Your task to perform on an android device: Check the news Image 0: 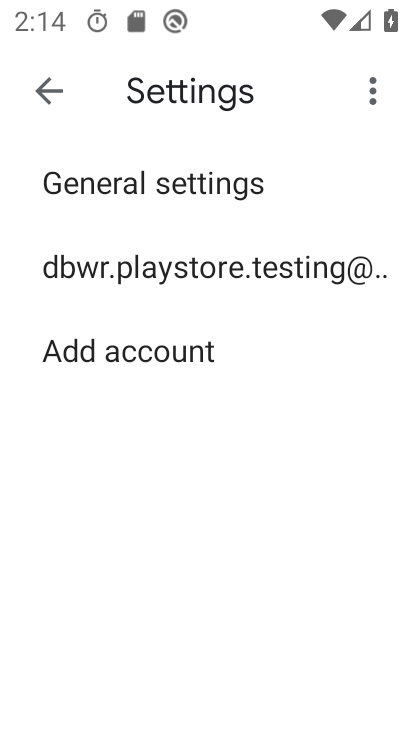
Step 0: click (48, 89)
Your task to perform on an android device: Check the news Image 1: 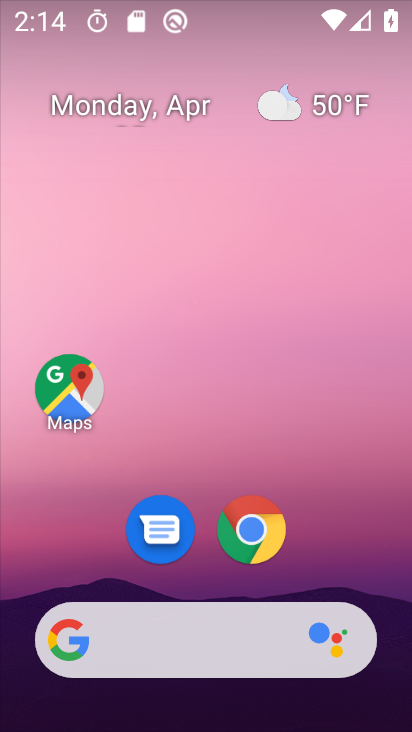
Step 1: click (322, 103)
Your task to perform on an android device: Check the news Image 2: 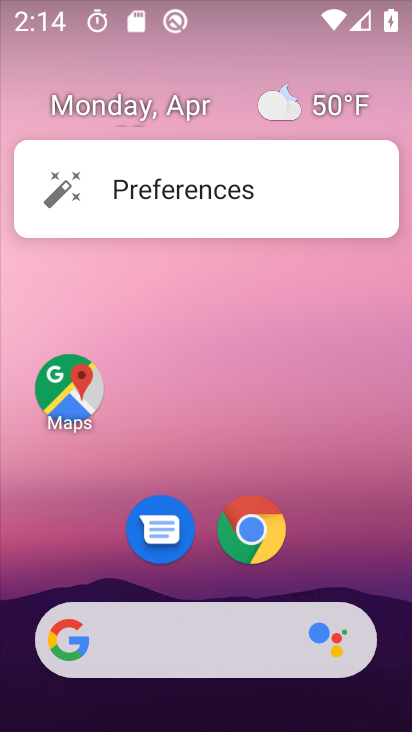
Step 2: click (331, 336)
Your task to perform on an android device: Check the news Image 3: 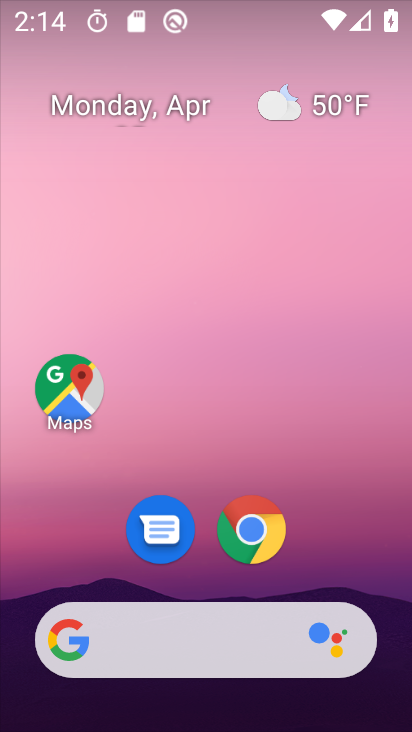
Step 3: drag from (375, 414) to (357, 100)
Your task to perform on an android device: Check the news Image 4: 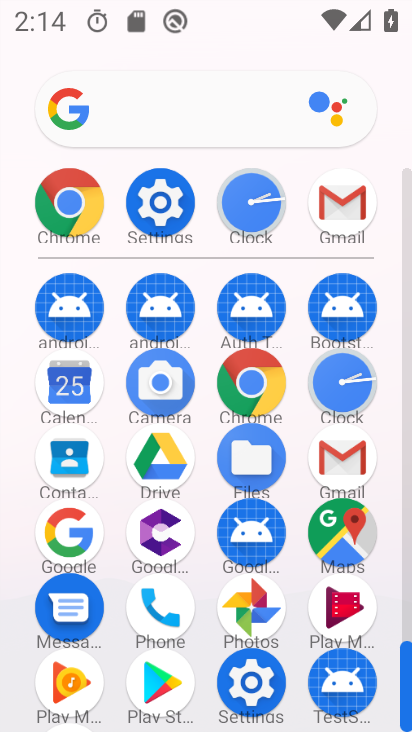
Step 4: click (60, 543)
Your task to perform on an android device: Check the news Image 5: 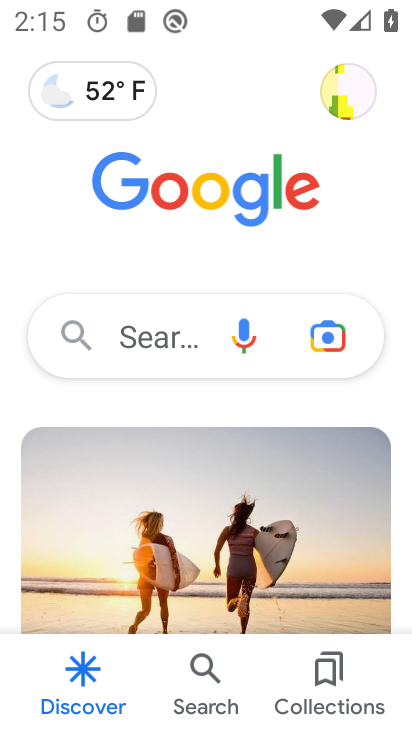
Step 5: task complete